Your task to perform on an android device: Open the calendar and show me this week's events? Image 0: 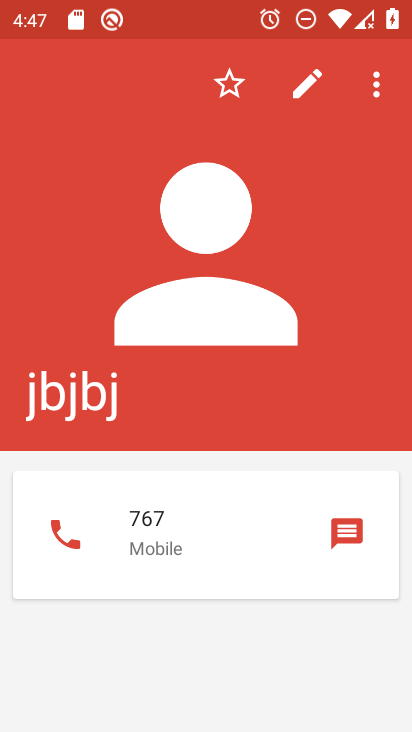
Step 0: press back button
Your task to perform on an android device: Open the calendar and show me this week's events? Image 1: 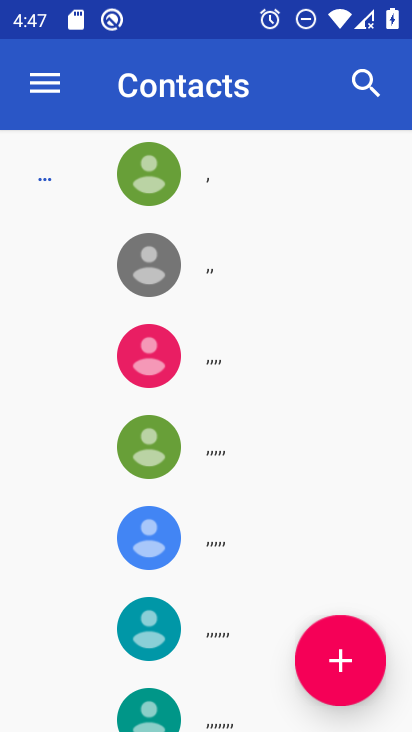
Step 1: press back button
Your task to perform on an android device: Open the calendar and show me this week's events? Image 2: 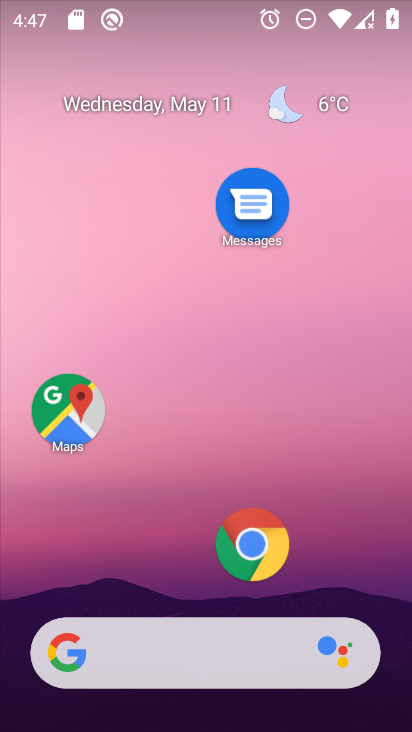
Step 2: drag from (190, 506) to (291, 16)
Your task to perform on an android device: Open the calendar and show me this week's events? Image 3: 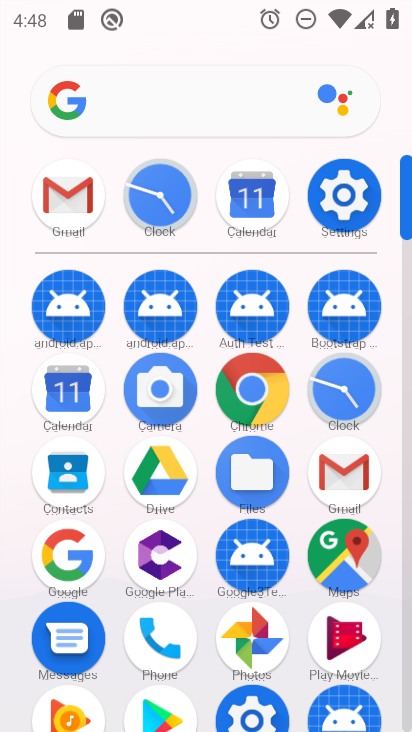
Step 3: click (64, 378)
Your task to perform on an android device: Open the calendar and show me this week's events? Image 4: 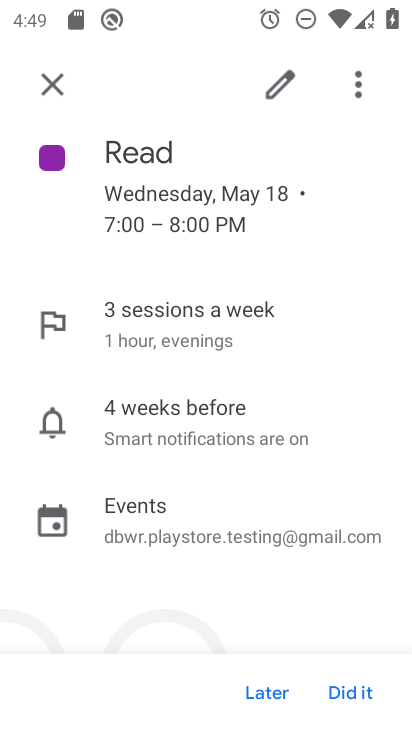
Step 4: click (52, 71)
Your task to perform on an android device: Open the calendar and show me this week's events? Image 5: 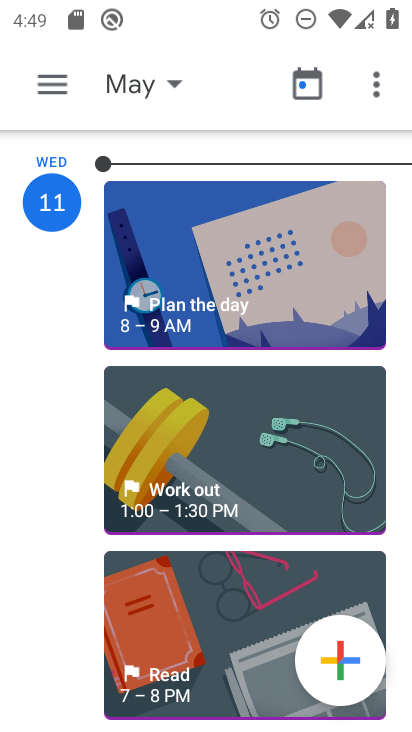
Step 5: click (203, 495)
Your task to perform on an android device: Open the calendar and show me this week's events? Image 6: 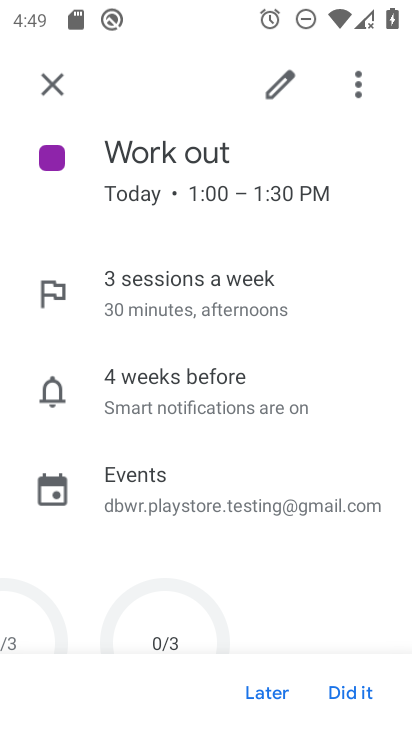
Step 6: task complete